Your task to perform on an android device: Open the phone app and click the voicemail tab. Image 0: 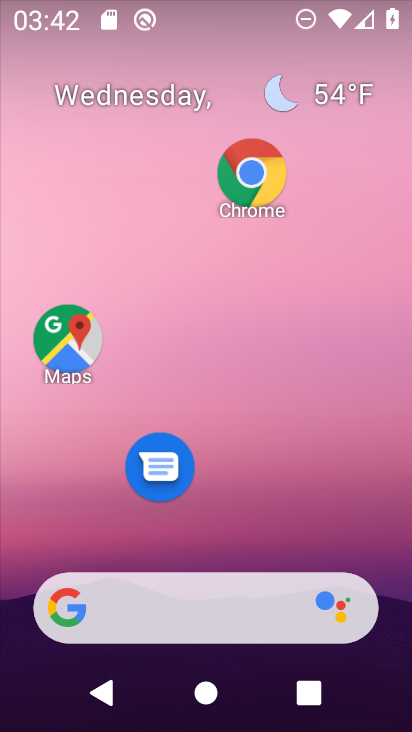
Step 0: drag from (238, 549) to (288, 83)
Your task to perform on an android device: Open the phone app and click the voicemail tab. Image 1: 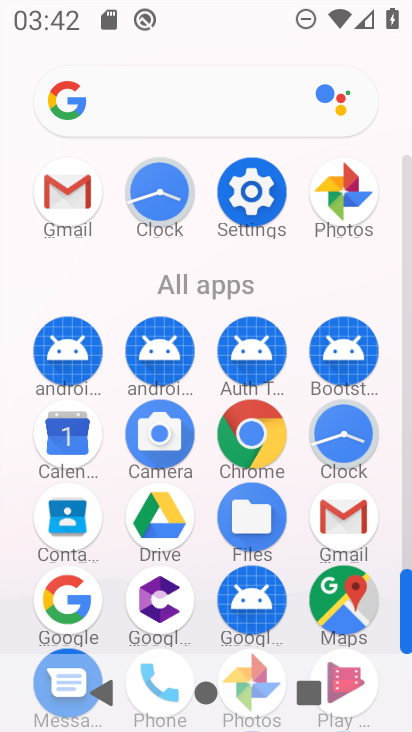
Step 1: drag from (170, 512) to (261, 100)
Your task to perform on an android device: Open the phone app and click the voicemail tab. Image 2: 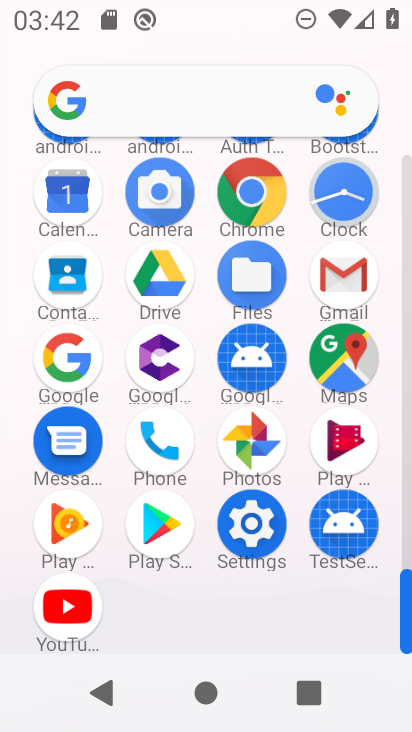
Step 2: click (162, 441)
Your task to perform on an android device: Open the phone app and click the voicemail tab. Image 3: 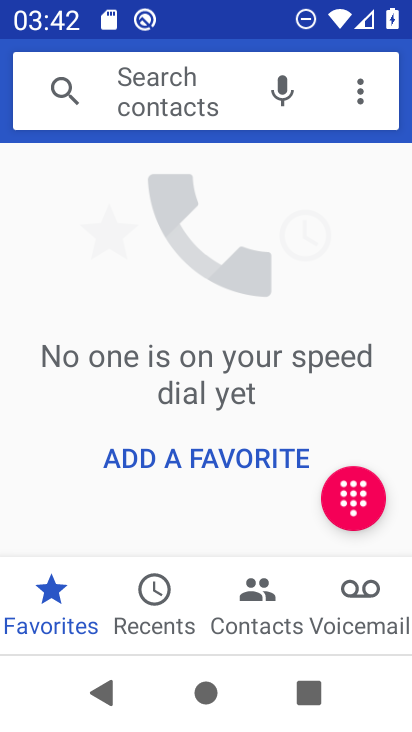
Step 3: click (351, 603)
Your task to perform on an android device: Open the phone app and click the voicemail tab. Image 4: 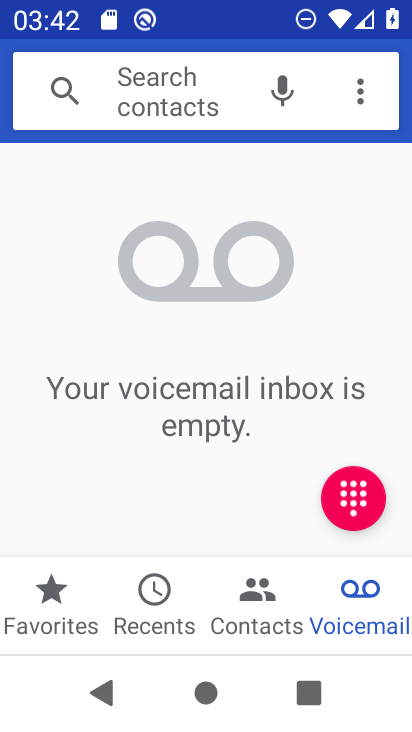
Step 4: task complete